Your task to perform on an android device: Show the shopping cart on amazon.com. Add rayovac triple a to the cart on amazon.com, then select checkout. Image 0: 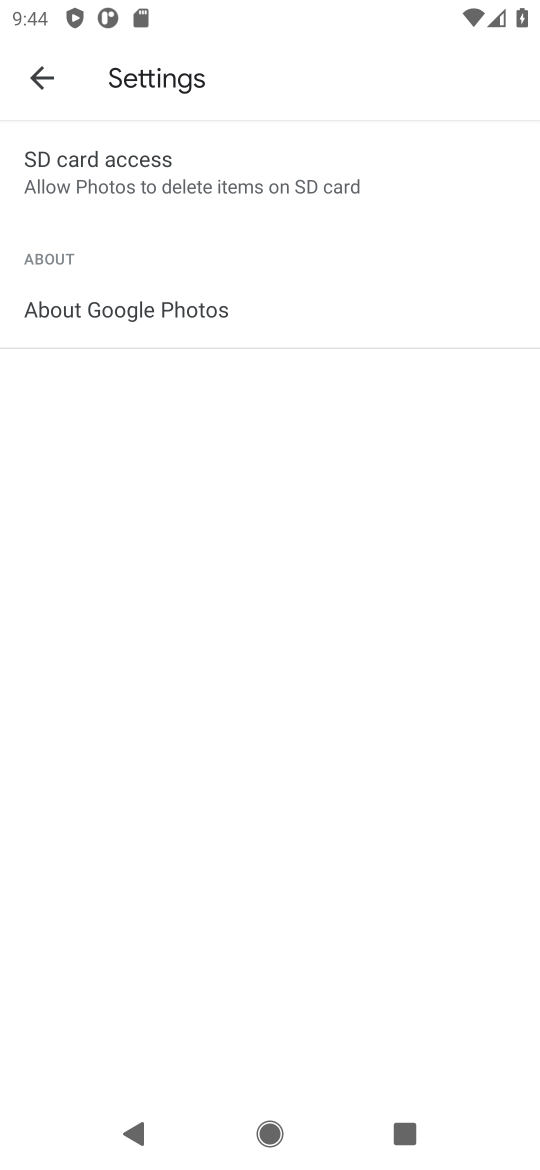
Step 0: press home button
Your task to perform on an android device: Show the shopping cart on amazon.com. Add rayovac triple a to the cart on amazon.com, then select checkout. Image 1: 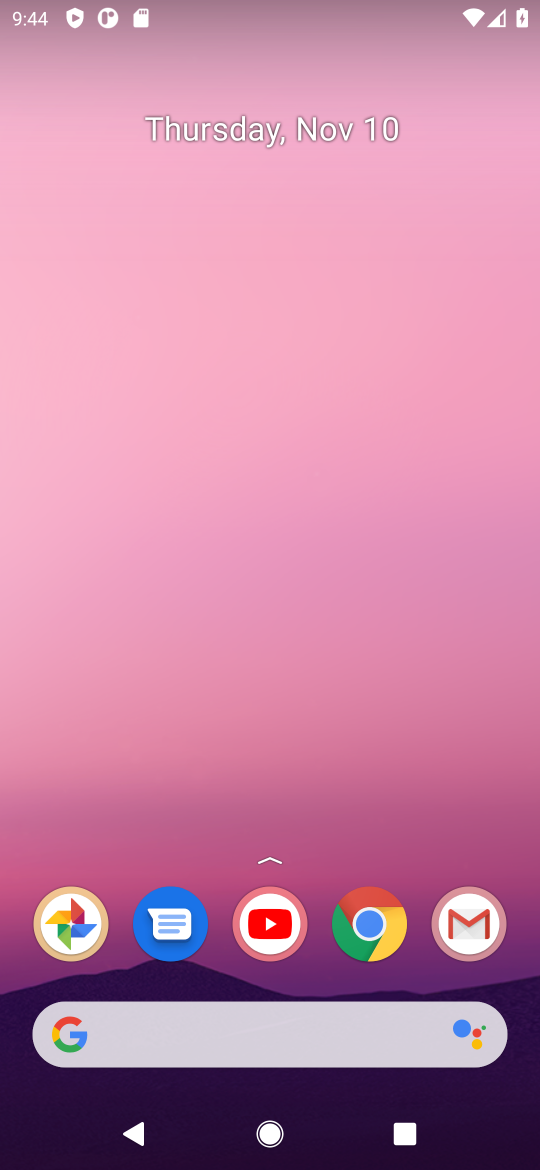
Step 1: click (386, 929)
Your task to perform on an android device: Show the shopping cart on amazon.com. Add rayovac triple a to the cart on amazon.com, then select checkout. Image 2: 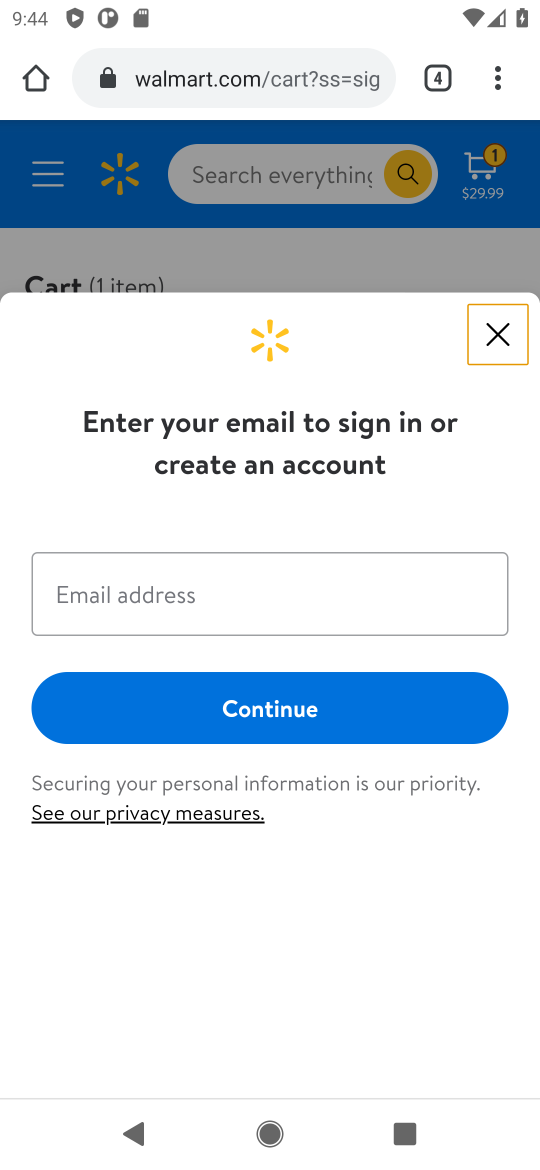
Step 2: click (225, 85)
Your task to perform on an android device: Show the shopping cart on amazon.com. Add rayovac triple a to the cart on amazon.com, then select checkout. Image 3: 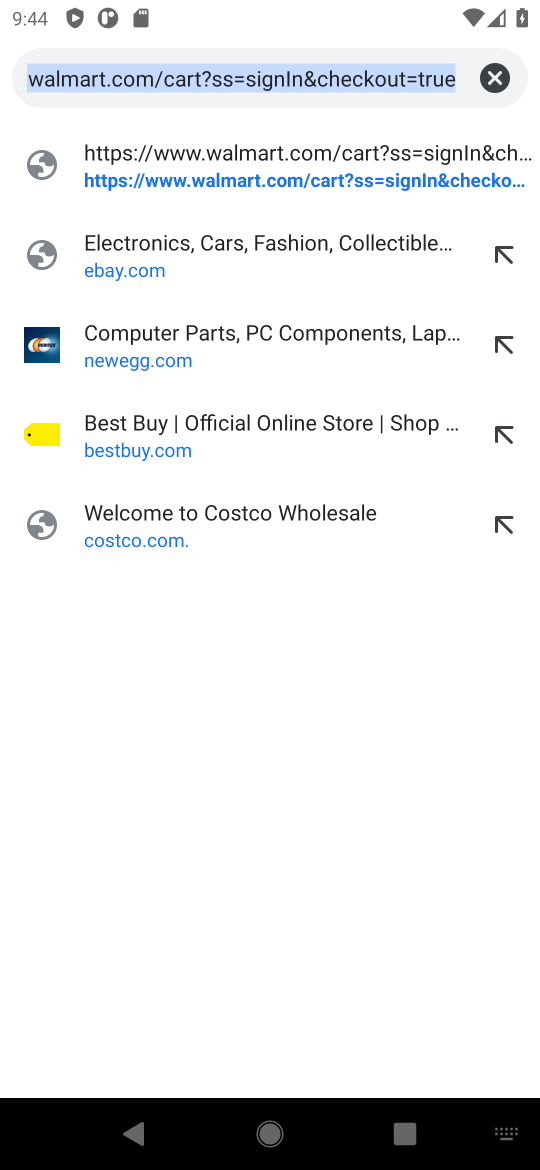
Step 3: type "amazon.com"
Your task to perform on an android device: Show the shopping cart on amazon.com. Add rayovac triple a to the cart on amazon.com, then select checkout. Image 4: 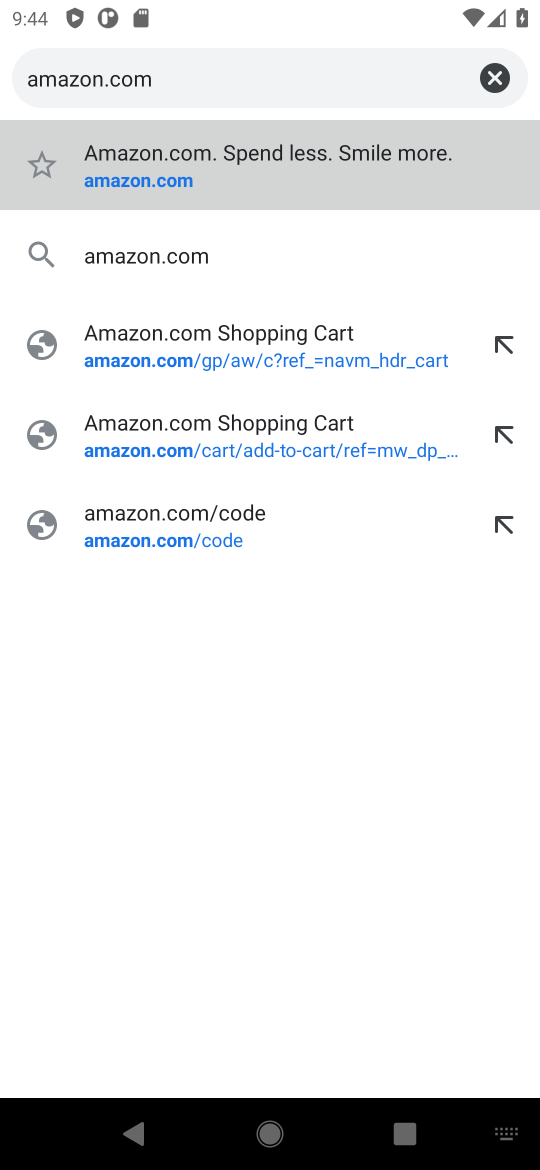
Step 4: click (168, 188)
Your task to perform on an android device: Show the shopping cart on amazon.com. Add rayovac triple a to the cart on amazon.com, then select checkout. Image 5: 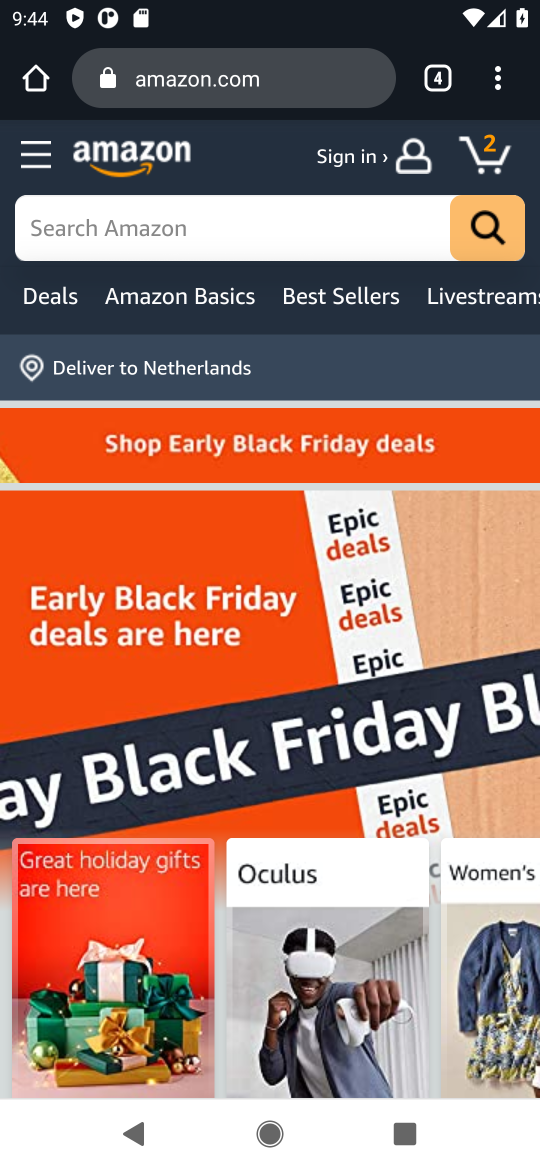
Step 5: click (485, 153)
Your task to perform on an android device: Show the shopping cart on amazon.com. Add rayovac triple a to the cart on amazon.com, then select checkout. Image 6: 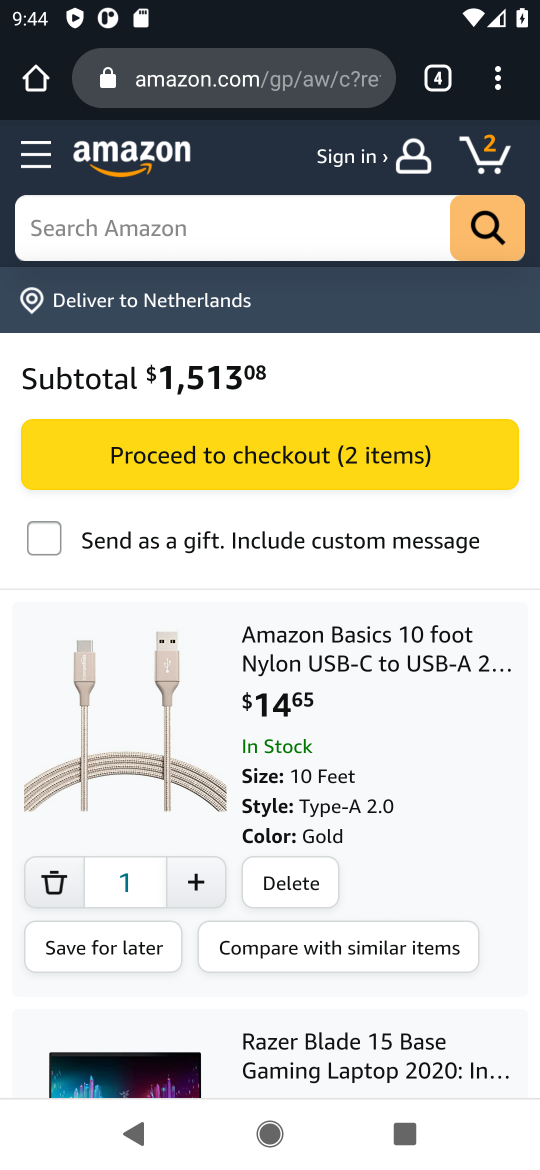
Step 6: drag from (277, 742) to (307, 484)
Your task to perform on an android device: Show the shopping cart on amazon.com. Add rayovac triple a to the cart on amazon.com, then select checkout. Image 7: 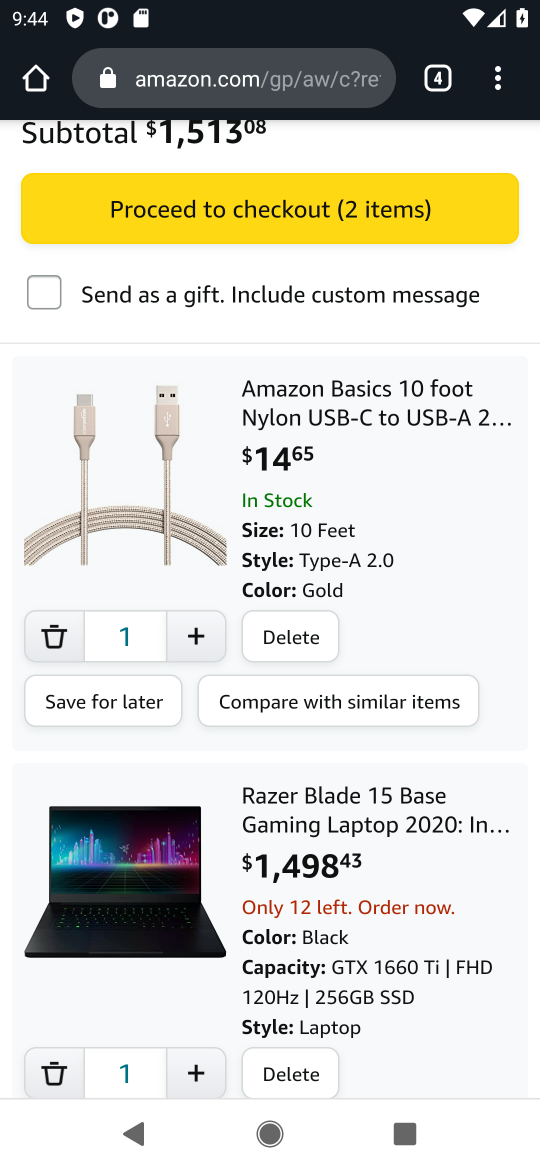
Step 7: drag from (339, 501) to (326, 857)
Your task to perform on an android device: Show the shopping cart on amazon.com. Add rayovac triple a to the cart on amazon.com, then select checkout. Image 8: 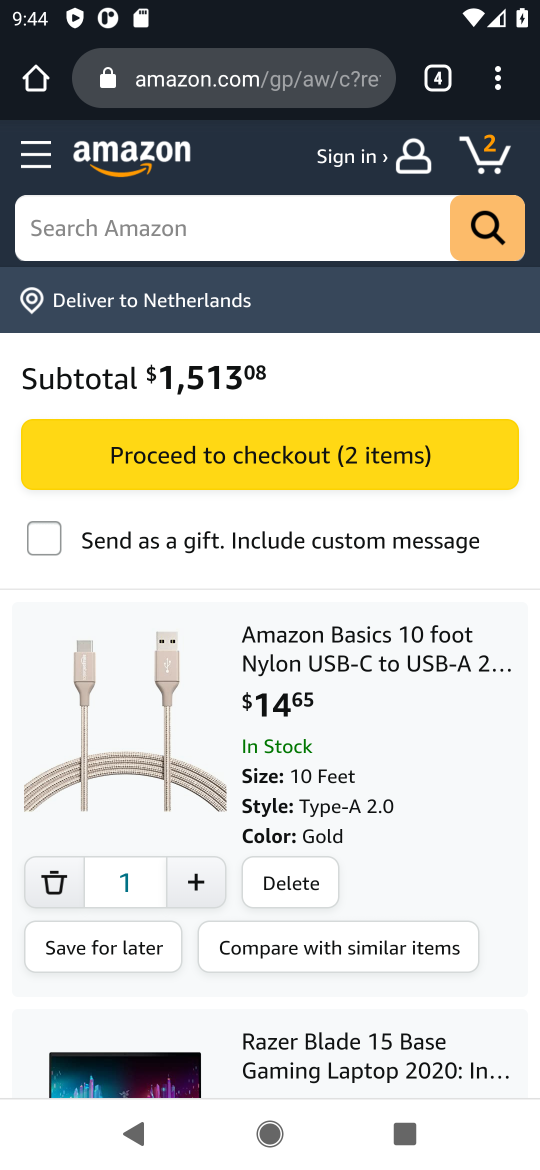
Step 8: click (246, 225)
Your task to perform on an android device: Show the shopping cart on amazon.com. Add rayovac triple a to the cart on amazon.com, then select checkout. Image 9: 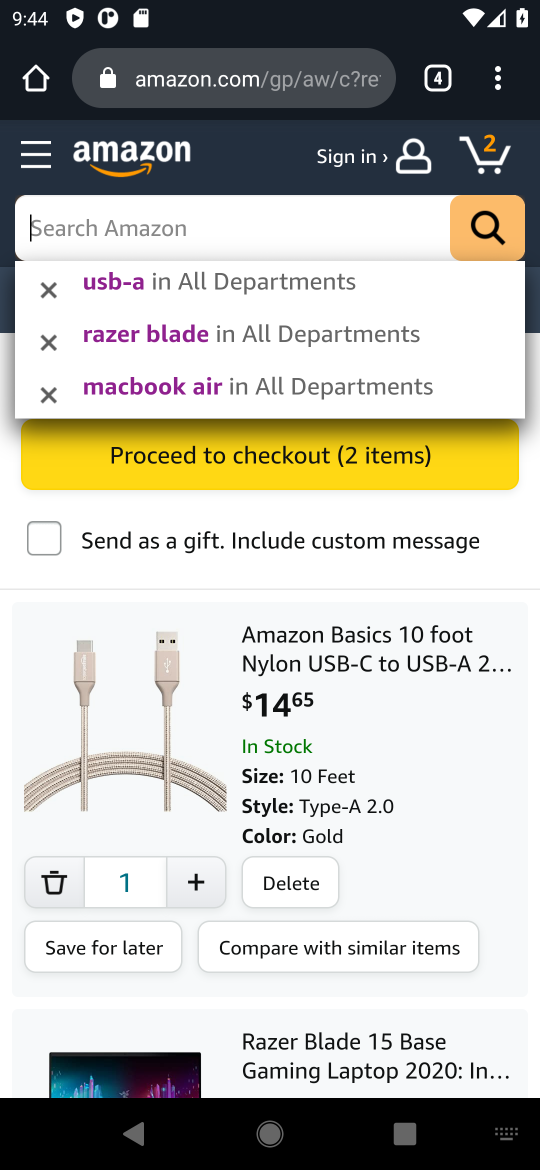
Step 9: type "rayovac triple a "
Your task to perform on an android device: Show the shopping cart on amazon.com. Add rayovac triple a to the cart on amazon.com, then select checkout. Image 10: 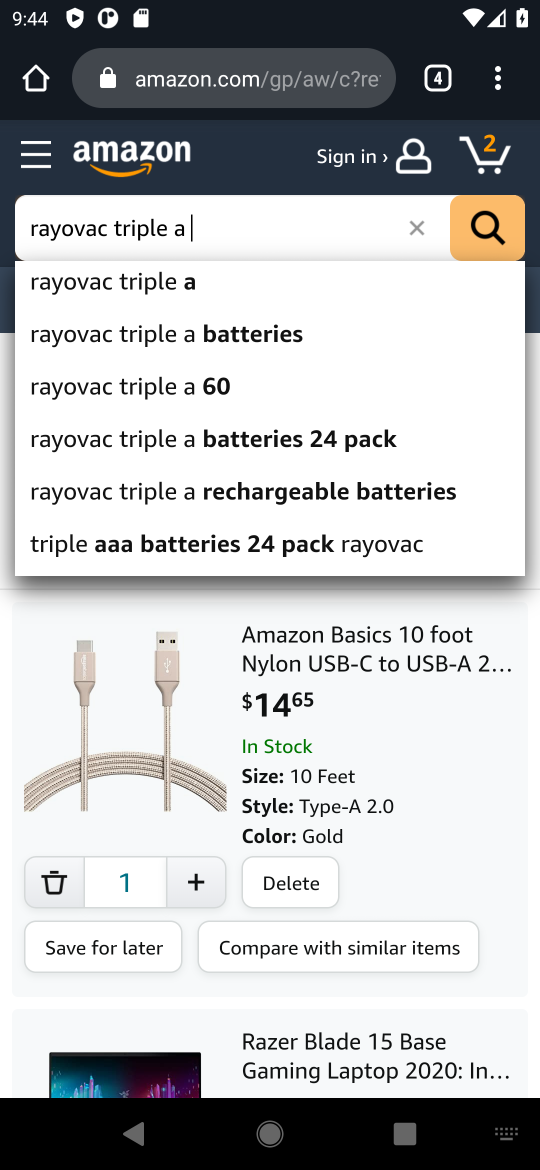
Step 10: click (156, 286)
Your task to perform on an android device: Show the shopping cart on amazon.com. Add rayovac triple a to the cart on amazon.com, then select checkout. Image 11: 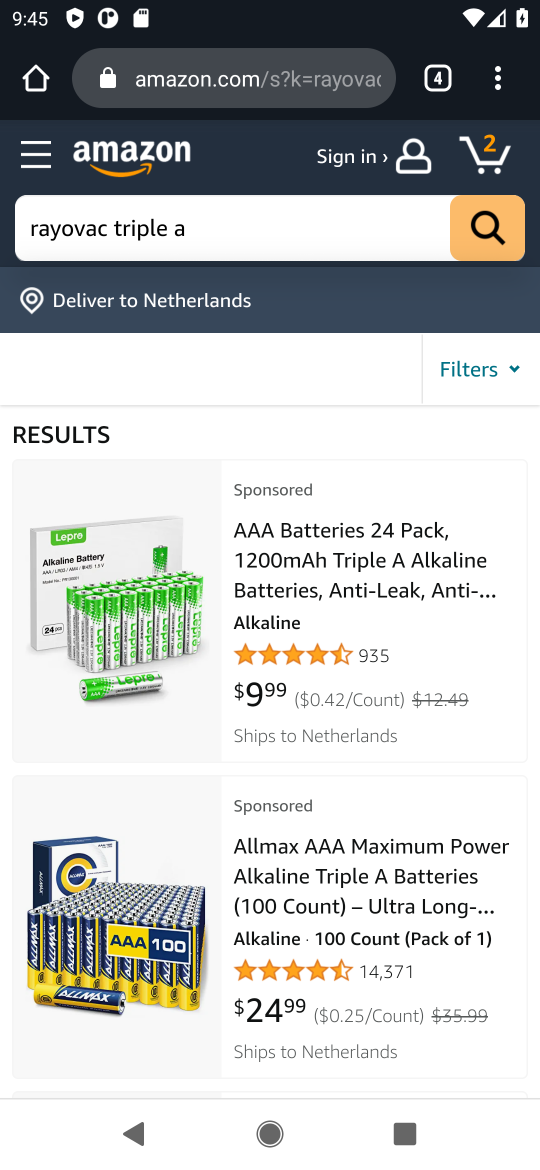
Step 11: drag from (138, 847) to (155, 486)
Your task to perform on an android device: Show the shopping cart on amazon.com. Add rayovac triple a to the cart on amazon.com, then select checkout. Image 12: 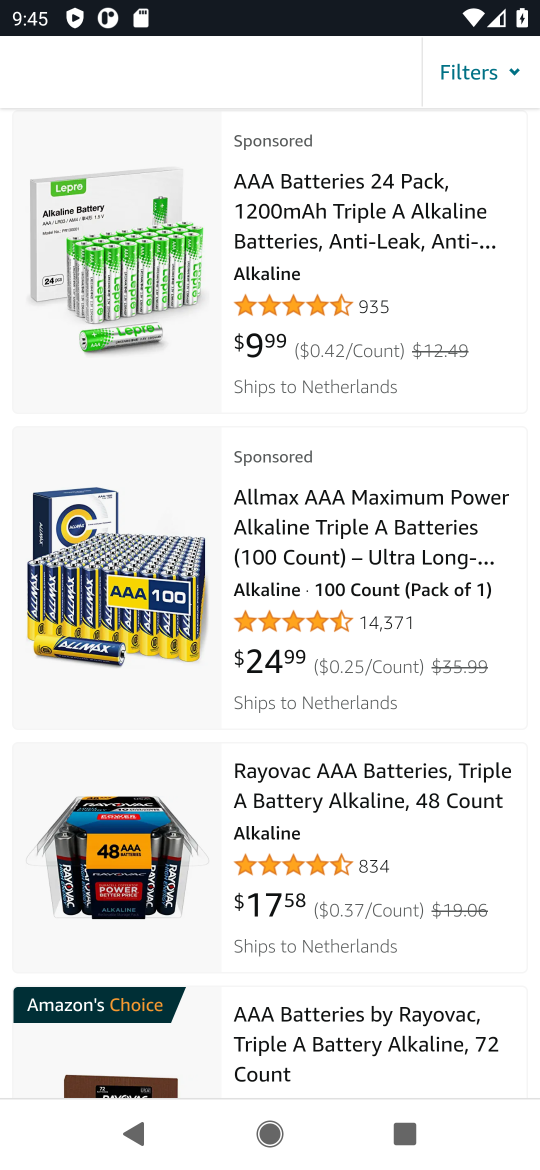
Step 12: click (130, 878)
Your task to perform on an android device: Show the shopping cart on amazon.com. Add rayovac triple a to the cart on amazon.com, then select checkout. Image 13: 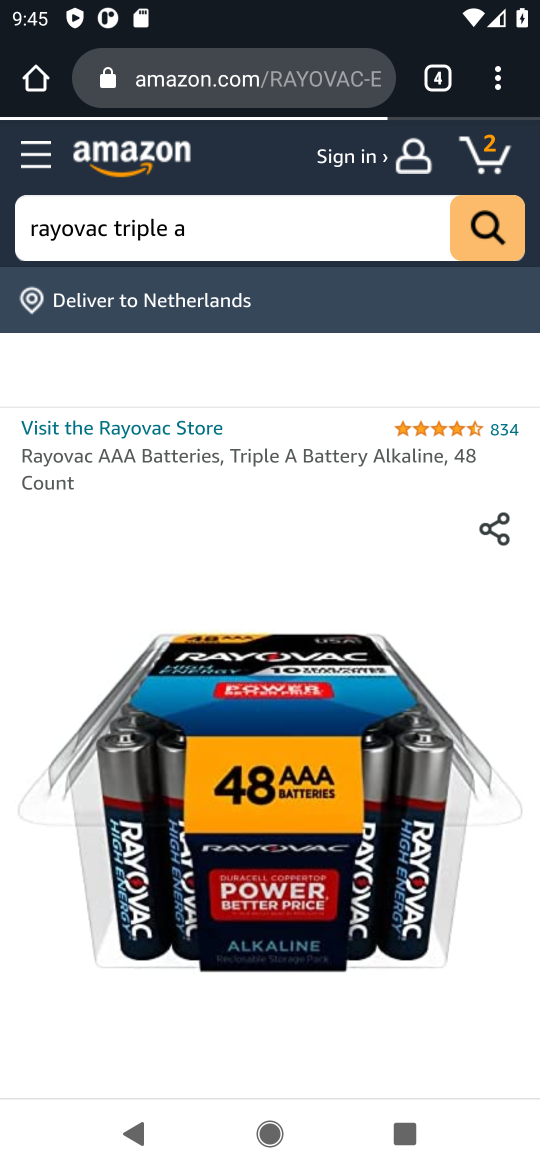
Step 13: drag from (268, 873) to (271, 406)
Your task to perform on an android device: Show the shopping cart on amazon.com. Add rayovac triple a to the cart on amazon.com, then select checkout. Image 14: 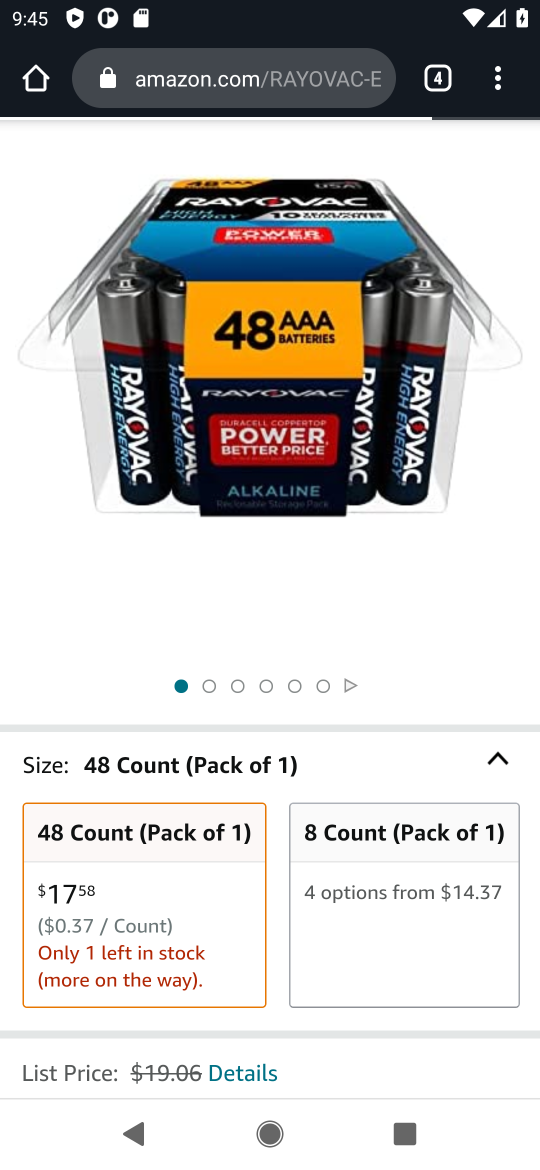
Step 14: drag from (280, 873) to (258, 422)
Your task to perform on an android device: Show the shopping cart on amazon.com. Add rayovac triple a to the cart on amazon.com, then select checkout. Image 15: 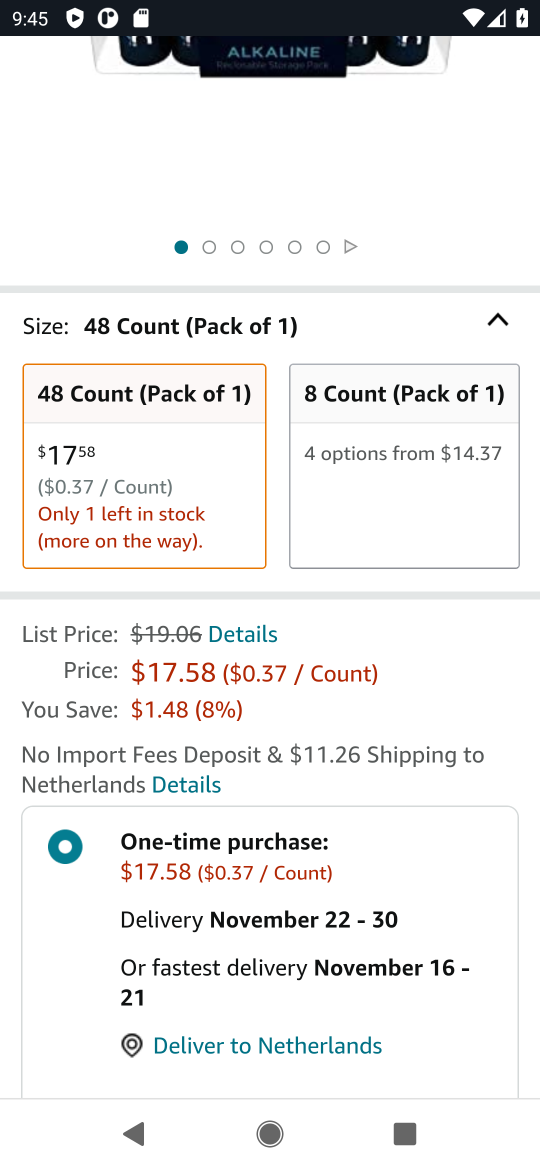
Step 15: drag from (289, 848) to (271, 428)
Your task to perform on an android device: Show the shopping cart on amazon.com. Add rayovac triple a to the cart on amazon.com, then select checkout. Image 16: 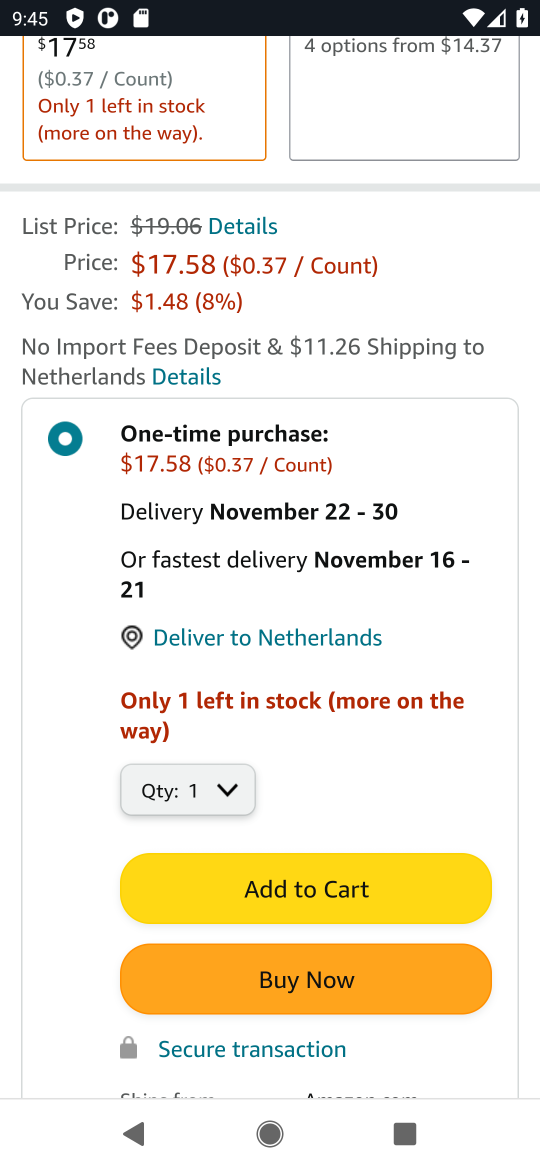
Step 16: click (276, 884)
Your task to perform on an android device: Show the shopping cart on amazon.com. Add rayovac triple a to the cart on amazon.com, then select checkout. Image 17: 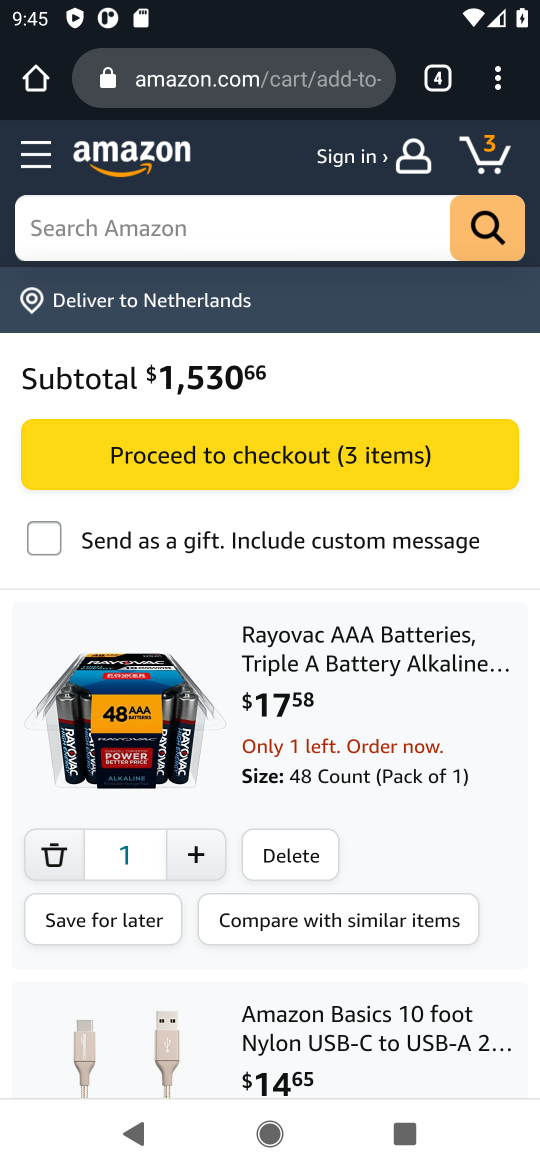
Step 17: click (305, 453)
Your task to perform on an android device: Show the shopping cart on amazon.com. Add rayovac triple a to the cart on amazon.com, then select checkout. Image 18: 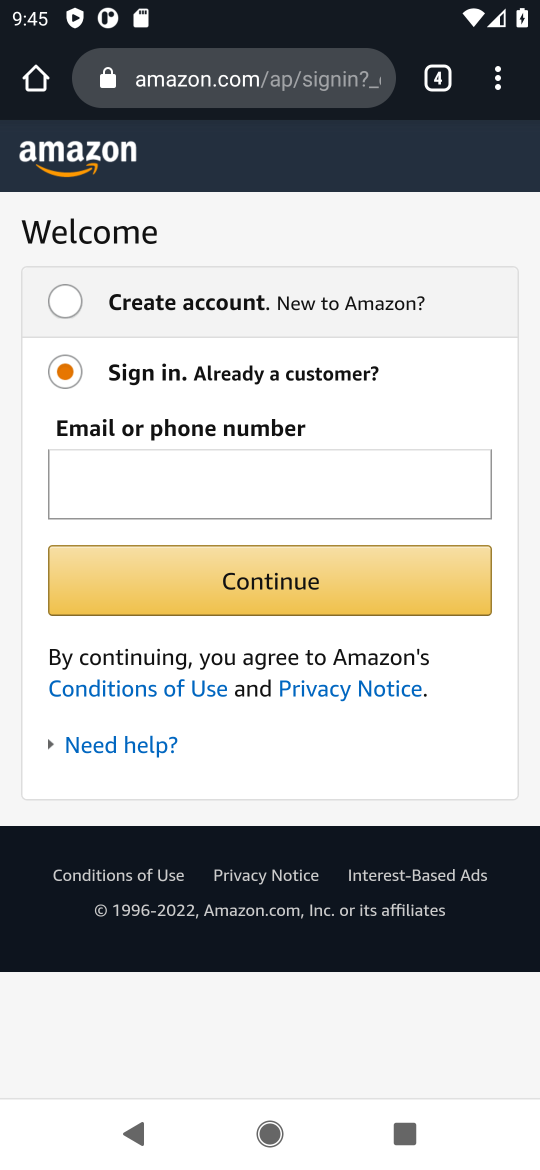
Step 18: task complete